Your task to perform on an android device: Open Google Chrome Image 0: 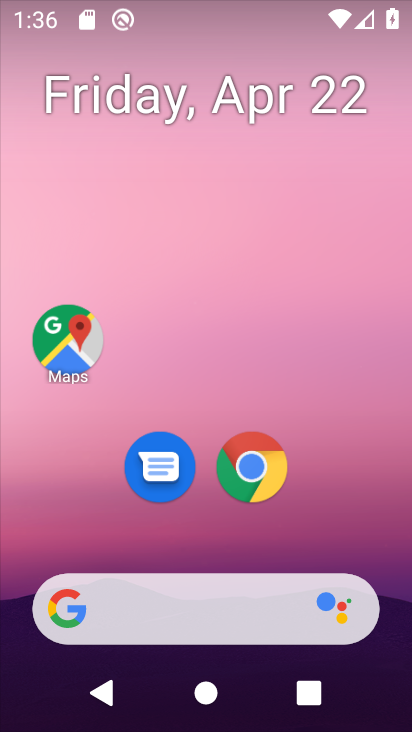
Step 0: click (255, 489)
Your task to perform on an android device: Open Google Chrome Image 1: 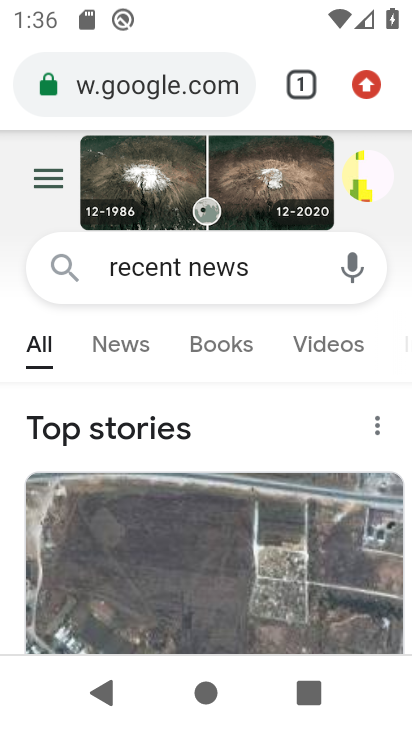
Step 1: task complete